Your task to perform on an android device: snooze an email in the gmail app Image 0: 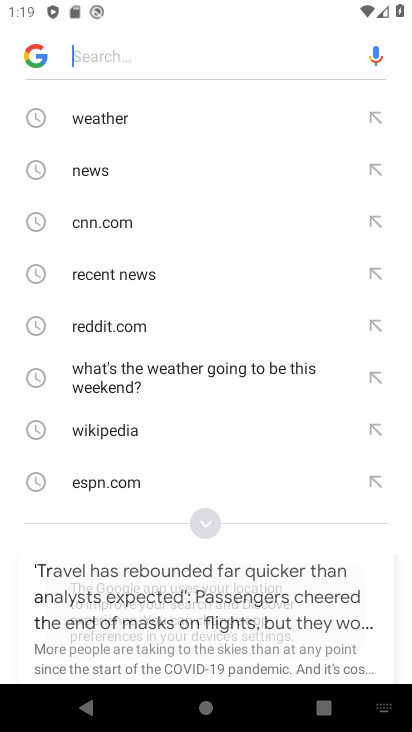
Step 0: press home button
Your task to perform on an android device: snooze an email in the gmail app Image 1: 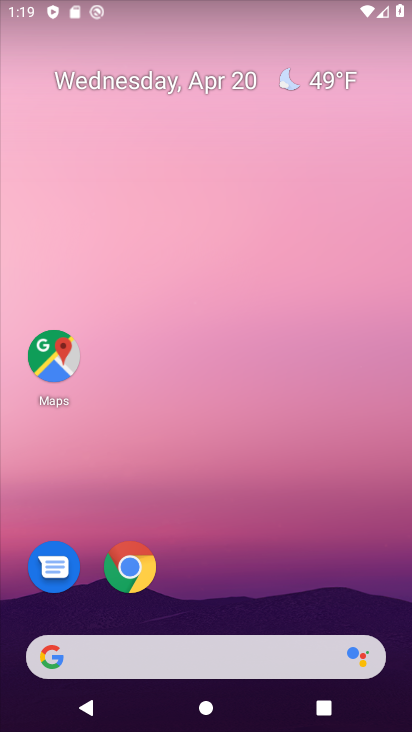
Step 1: drag from (266, 566) to (299, 67)
Your task to perform on an android device: snooze an email in the gmail app Image 2: 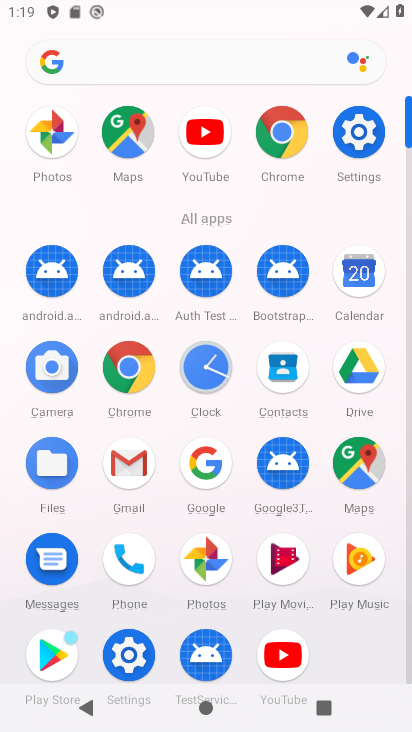
Step 2: click (135, 479)
Your task to perform on an android device: snooze an email in the gmail app Image 3: 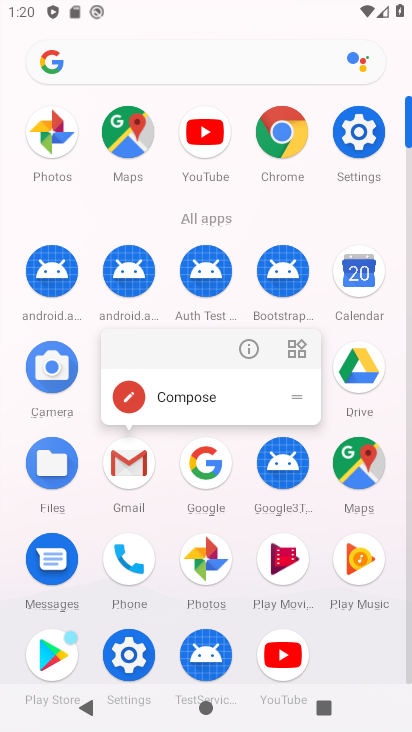
Step 3: click (229, 503)
Your task to perform on an android device: snooze an email in the gmail app Image 4: 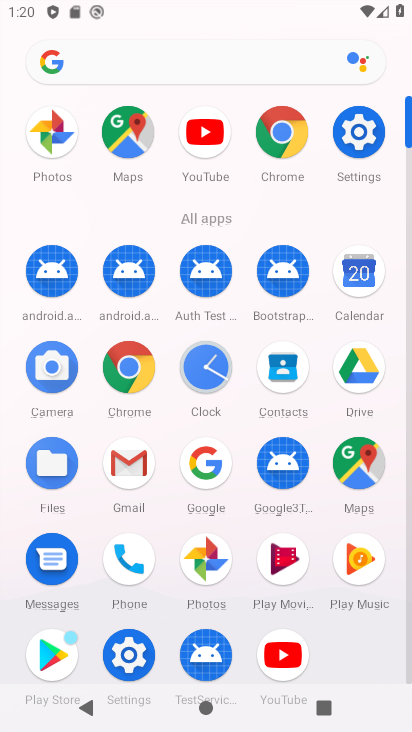
Step 4: click (120, 468)
Your task to perform on an android device: snooze an email in the gmail app Image 5: 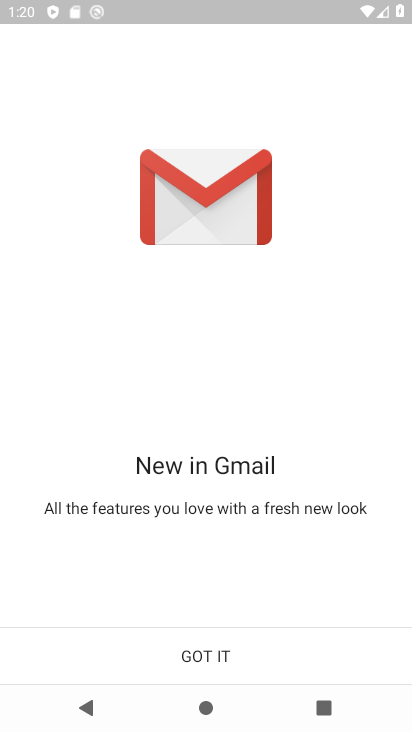
Step 5: click (200, 662)
Your task to perform on an android device: snooze an email in the gmail app Image 6: 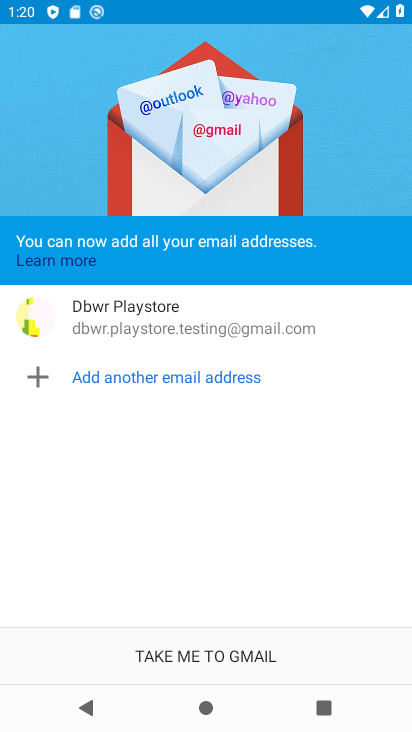
Step 6: click (221, 661)
Your task to perform on an android device: snooze an email in the gmail app Image 7: 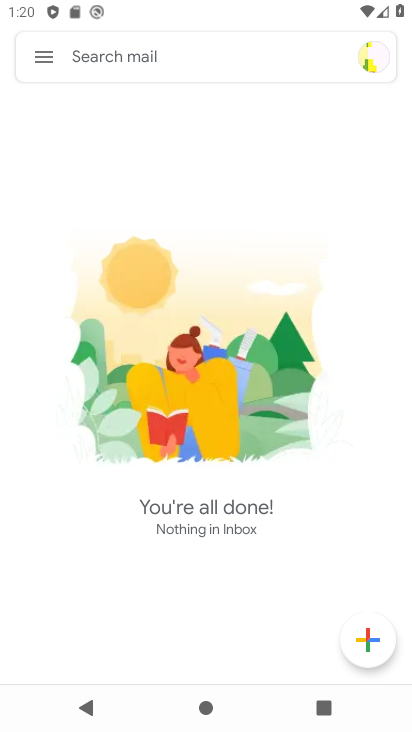
Step 7: task complete